Your task to perform on an android device: empty trash in the gmail app Image 0: 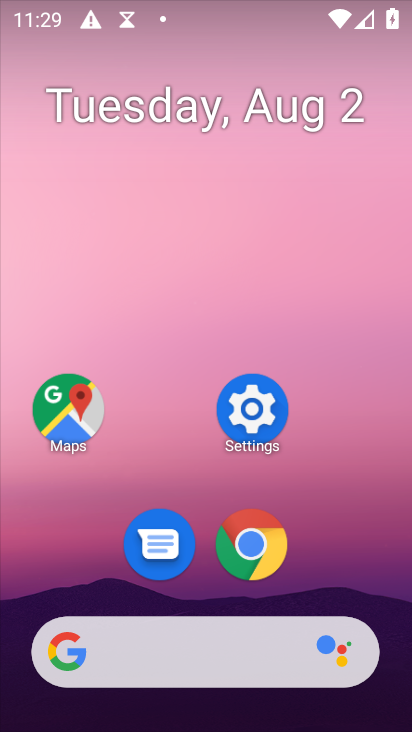
Step 0: drag from (240, 656) to (351, 120)
Your task to perform on an android device: empty trash in the gmail app Image 1: 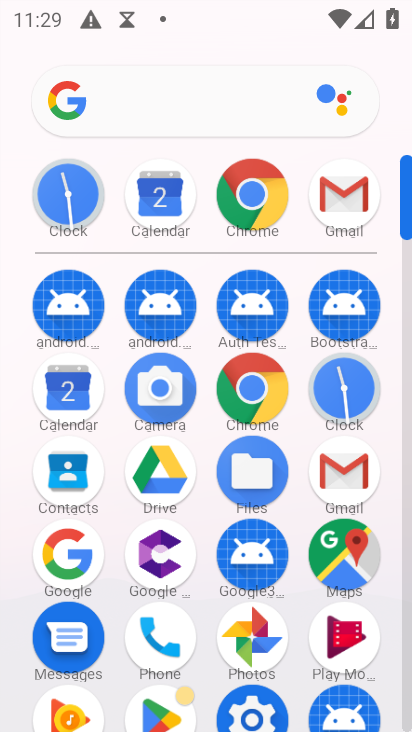
Step 1: click (345, 202)
Your task to perform on an android device: empty trash in the gmail app Image 2: 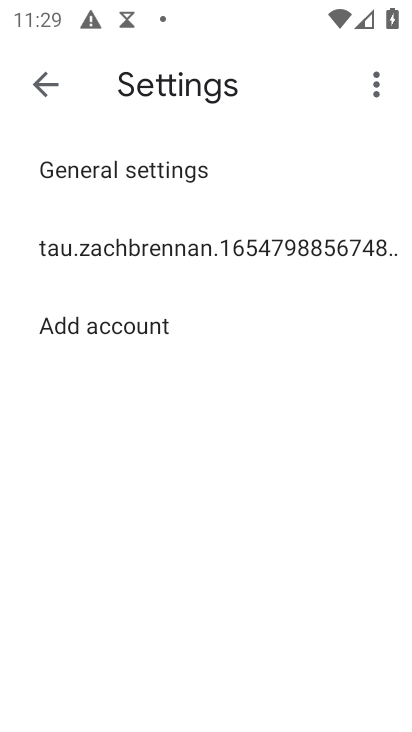
Step 2: click (57, 88)
Your task to perform on an android device: empty trash in the gmail app Image 3: 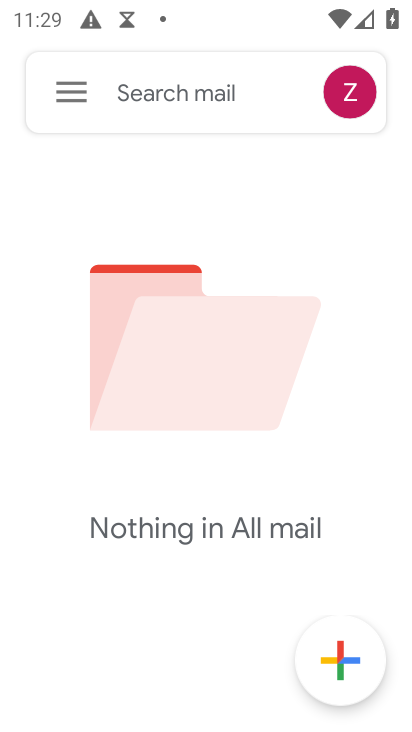
Step 3: click (71, 90)
Your task to perform on an android device: empty trash in the gmail app Image 4: 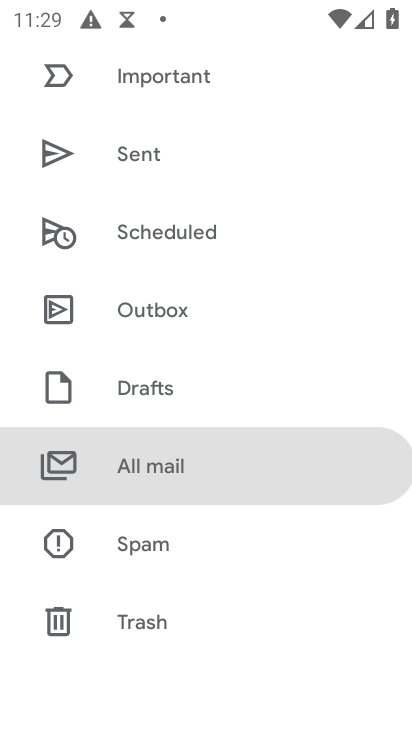
Step 4: click (147, 624)
Your task to perform on an android device: empty trash in the gmail app Image 5: 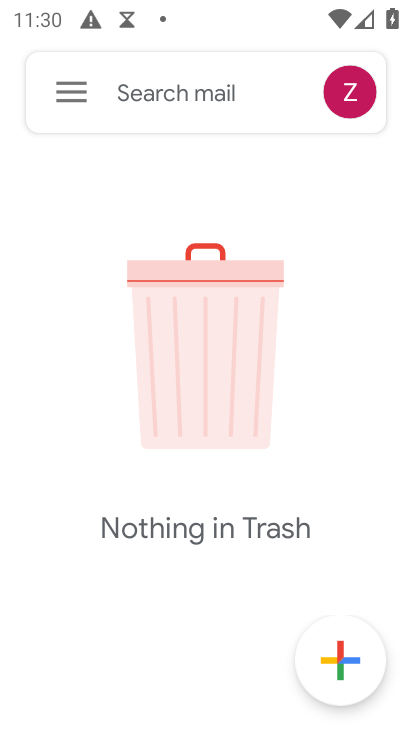
Step 5: task complete